Your task to perform on an android device: Open internet settings Image 0: 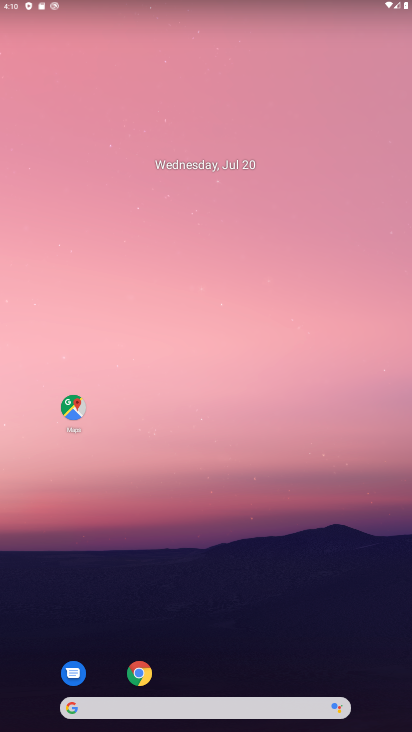
Step 0: drag from (191, 623) to (178, 81)
Your task to perform on an android device: Open internet settings Image 1: 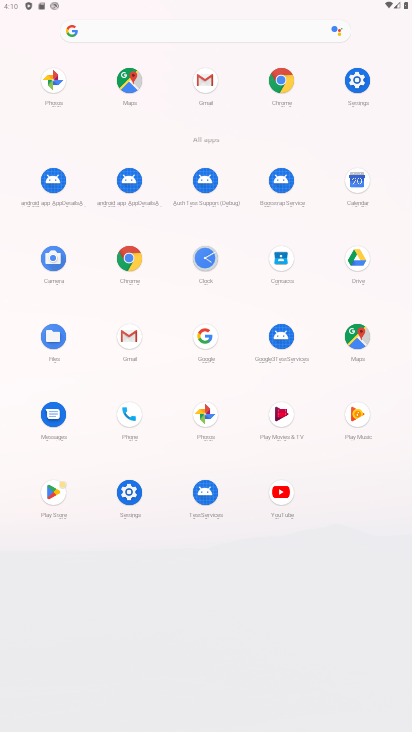
Step 1: click (130, 488)
Your task to perform on an android device: Open internet settings Image 2: 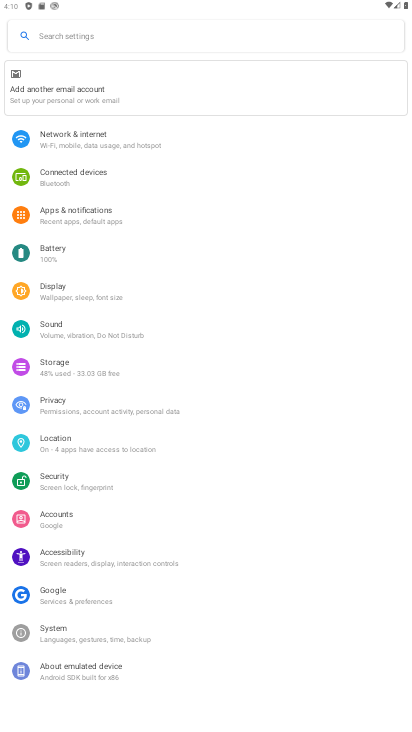
Step 2: click (76, 125)
Your task to perform on an android device: Open internet settings Image 3: 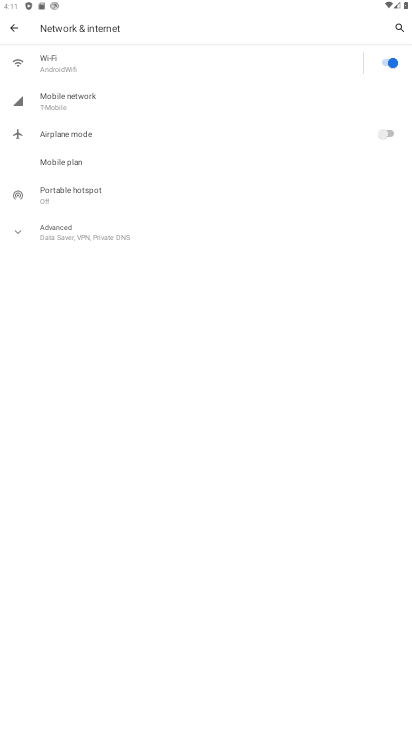
Step 3: task complete